Your task to perform on an android device: Go to Android settings Image 0: 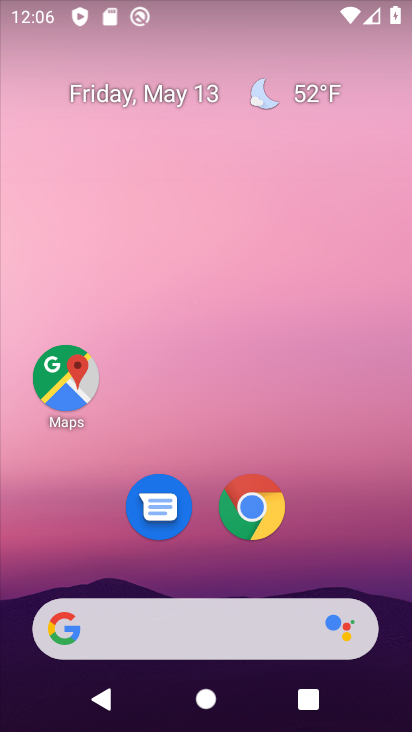
Step 0: drag from (216, 597) to (290, 212)
Your task to perform on an android device: Go to Android settings Image 1: 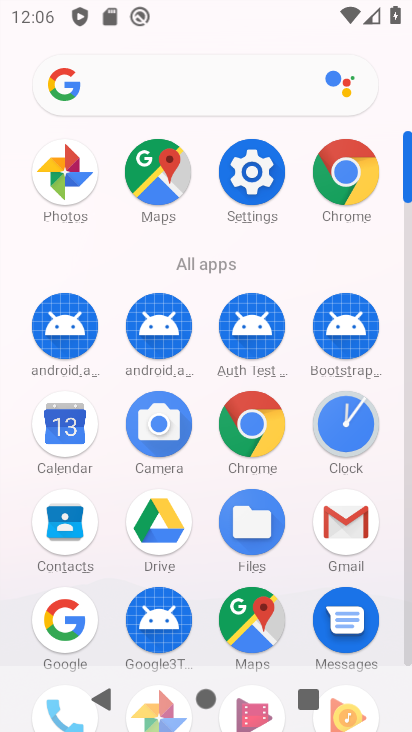
Step 1: click (253, 171)
Your task to perform on an android device: Go to Android settings Image 2: 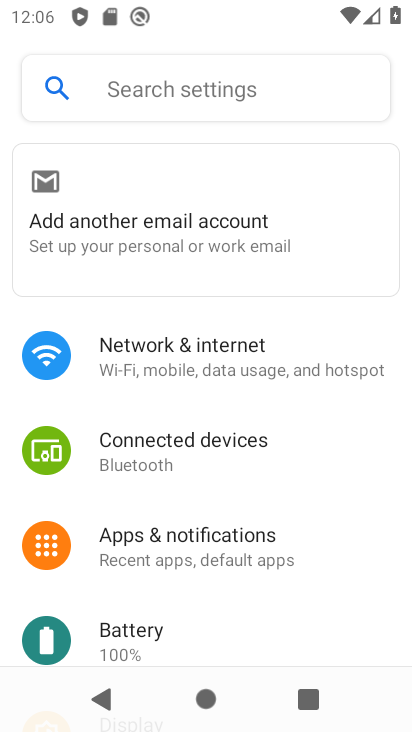
Step 2: task complete